Your task to perform on an android device: find photos in the google photos app Image 0: 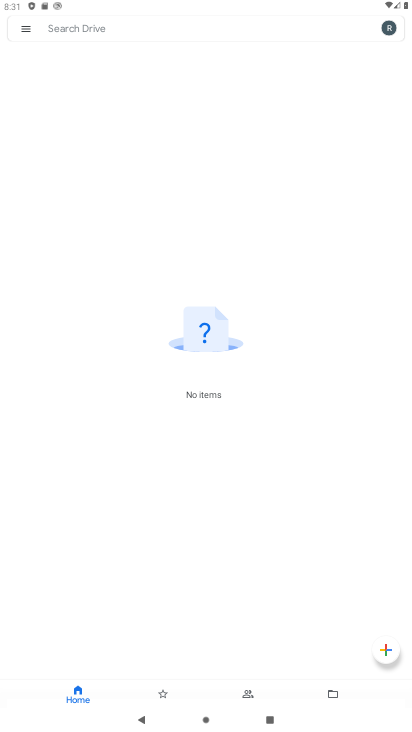
Step 0: drag from (184, 655) to (140, 261)
Your task to perform on an android device: find photos in the google photos app Image 1: 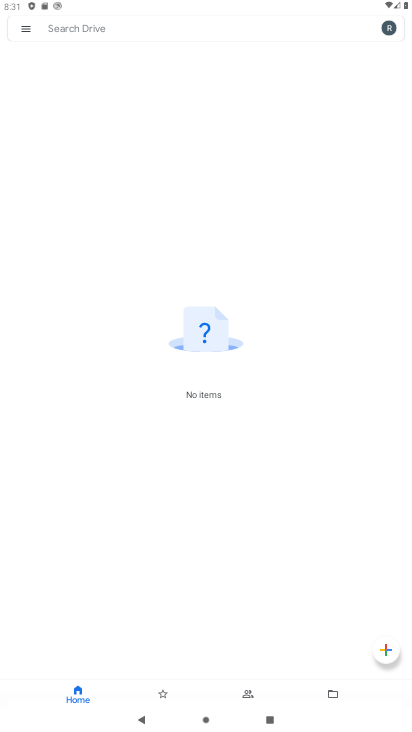
Step 1: press home button
Your task to perform on an android device: find photos in the google photos app Image 2: 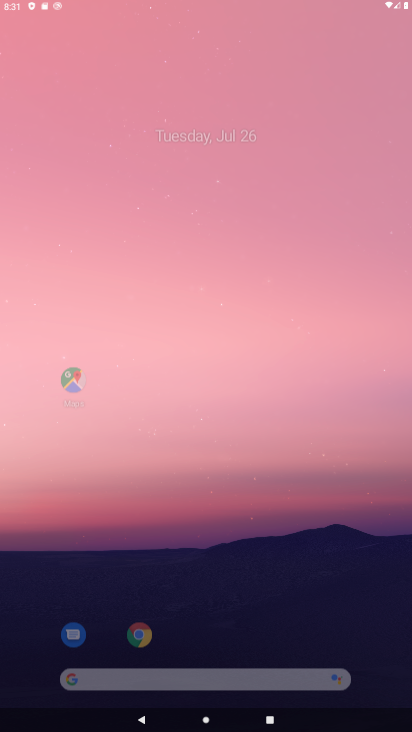
Step 2: drag from (175, 620) to (203, 198)
Your task to perform on an android device: find photos in the google photos app Image 3: 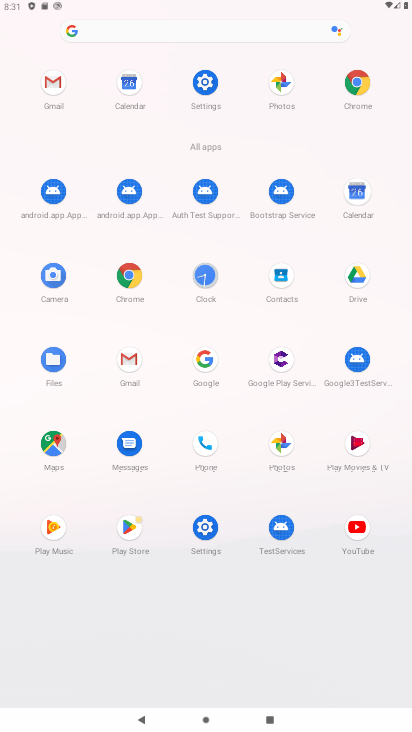
Step 3: click (274, 433)
Your task to perform on an android device: find photos in the google photos app Image 4: 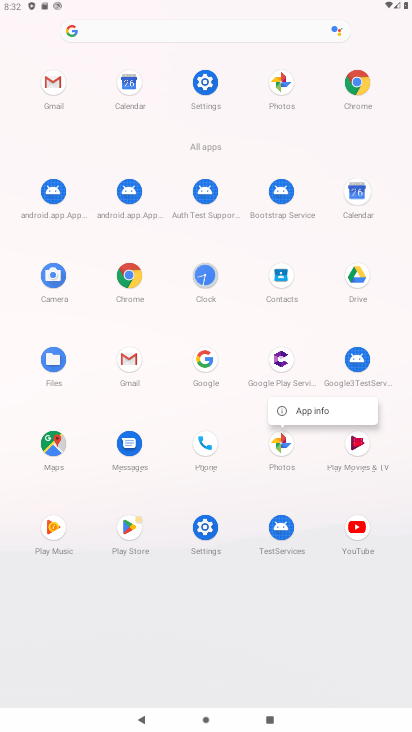
Step 4: click (311, 406)
Your task to perform on an android device: find photos in the google photos app Image 5: 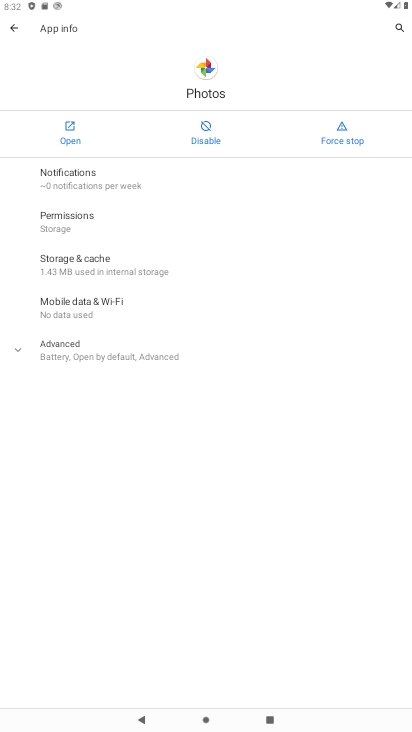
Step 5: click (71, 130)
Your task to perform on an android device: find photos in the google photos app Image 6: 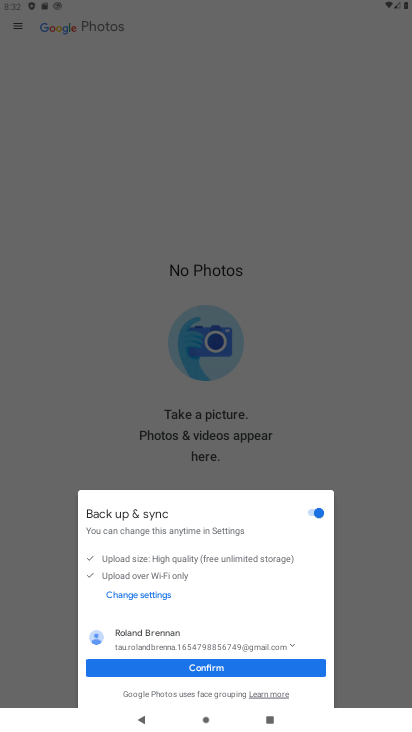
Step 6: click (226, 667)
Your task to perform on an android device: find photos in the google photos app Image 7: 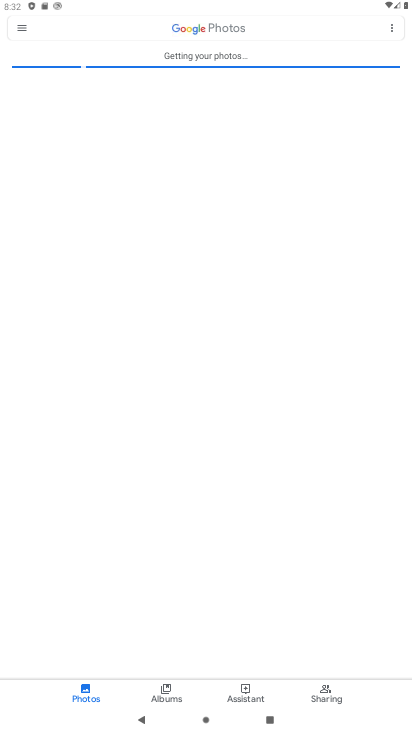
Step 7: drag from (151, 629) to (178, 293)
Your task to perform on an android device: find photos in the google photos app Image 8: 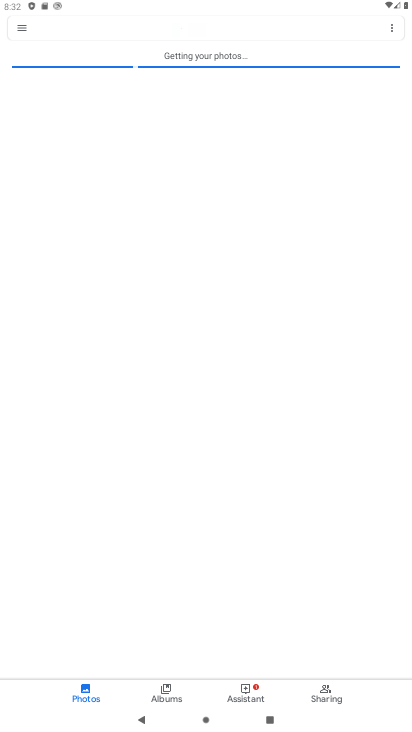
Step 8: click (29, 22)
Your task to perform on an android device: find photos in the google photos app Image 9: 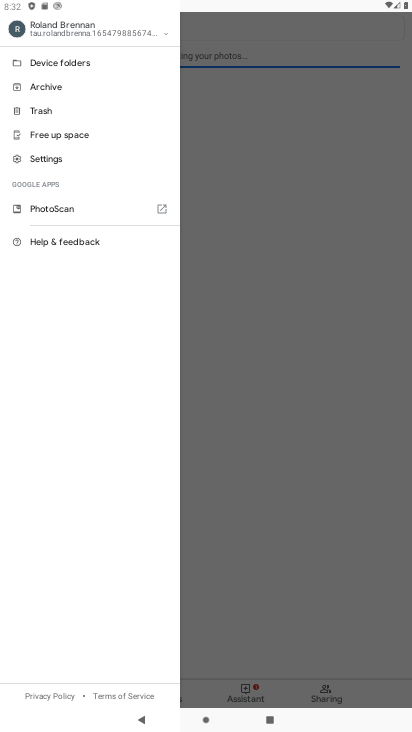
Step 9: click (243, 206)
Your task to perform on an android device: find photos in the google photos app Image 10: 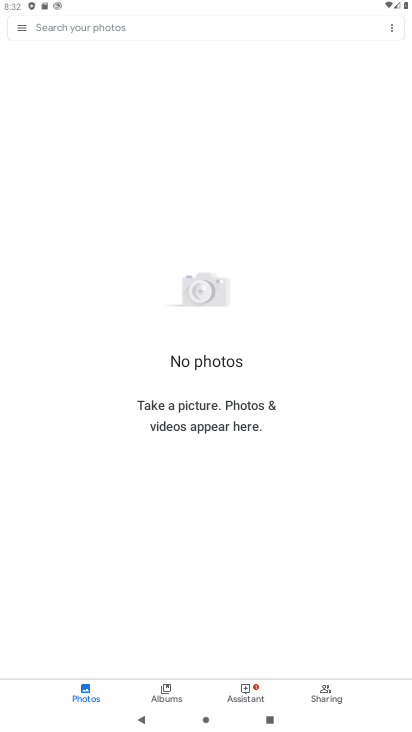
Step 10: click (80, 686)
Your task to perform on an android device: find photos in the google photos app Image 11: 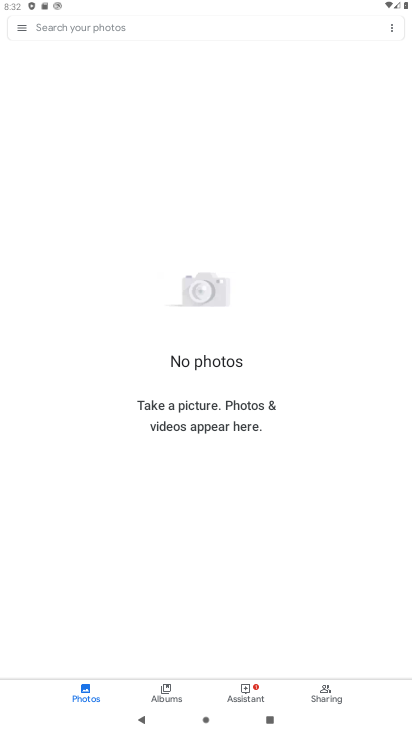
Step 11: task complete